Your task to perform on an android device: Open notification settings Image 0: 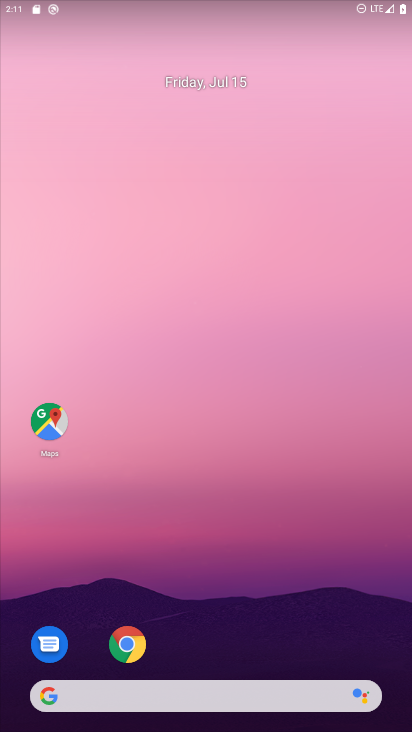
Step 0: press home button
Your task to perform on an android device: Open notification settings Image 1: 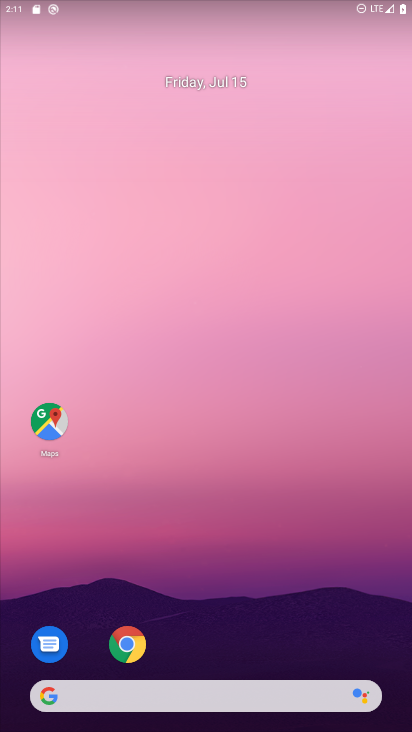
Step 1: drag from (13, 675) to (234, 43)
Your task to perform on an android device: Open notification settings Image 2: 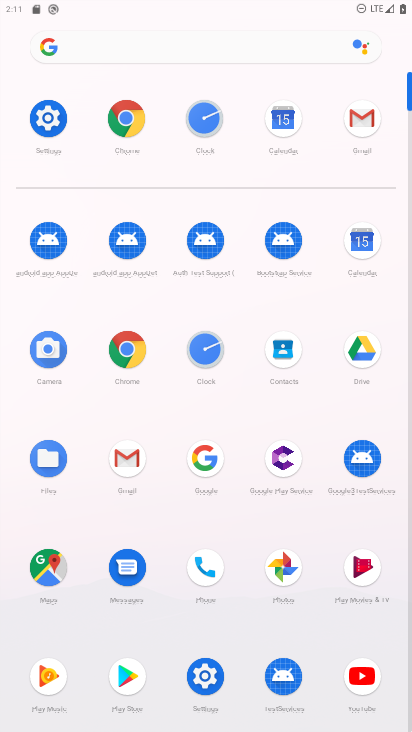
Step 2: click (47, 120)
Your task to perform on an android device: Open notification settings Image 3: 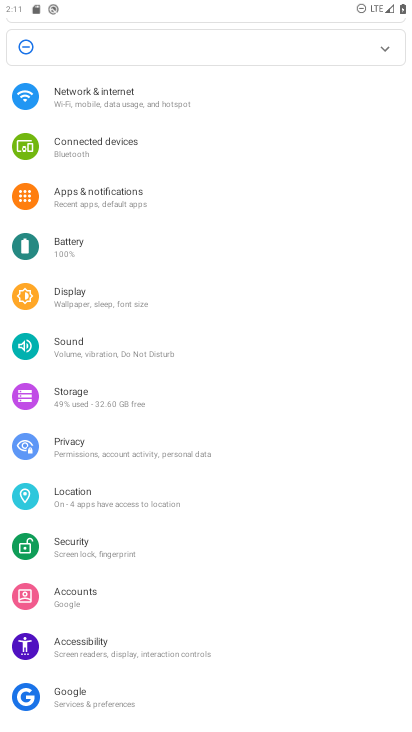
Step 3: click (116, 202)
Your task to perform on an android device: Open notification settings Image 4: 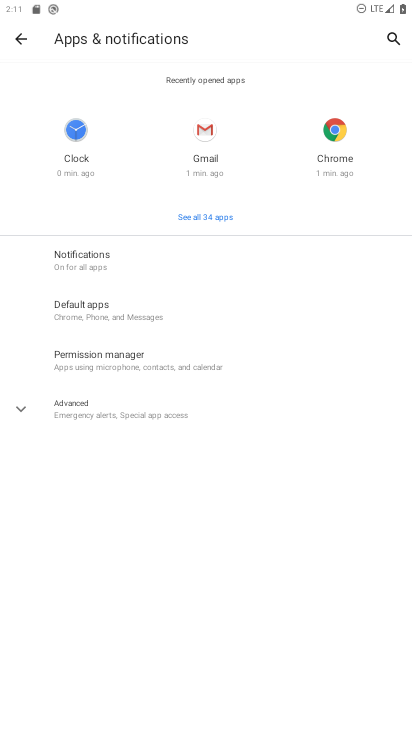
Step 4: click (109, 271)
Your task to perform on an android device: Open notification settings Image 5: 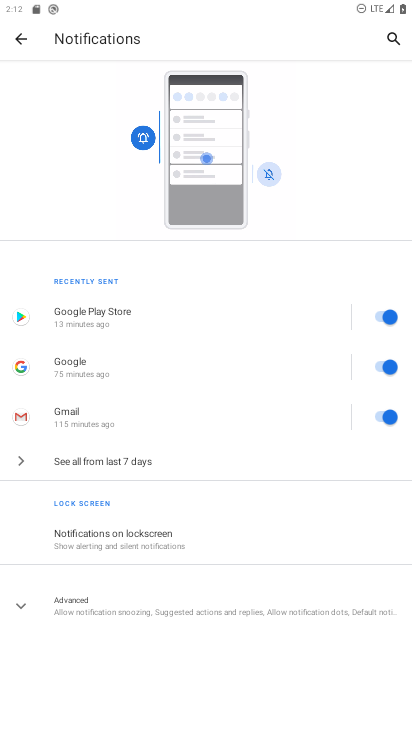
Step 5: task complete